Your task to perform on an android device: Show me popular videos on Youtube Image 0: 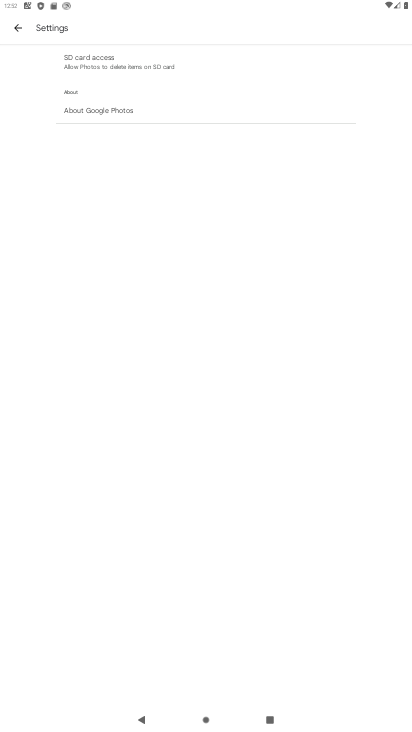
Step 0: task complete